Your task to perform on an android device: Open calendar and show me the second week of next month Image 0: 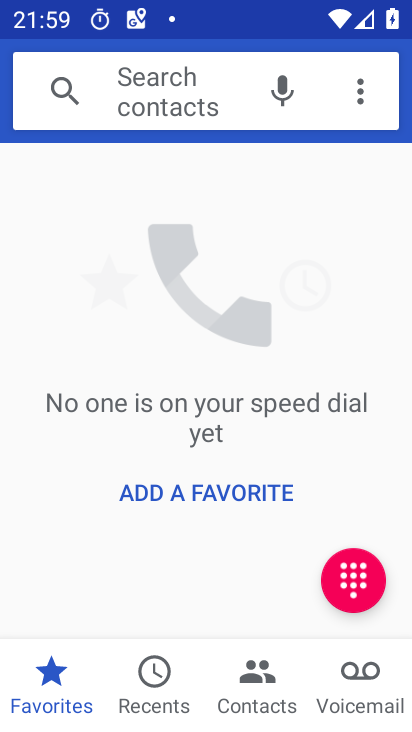
Step 0: press home button
Your task to perform on an android device: Open calendar and show me the second week of next month Image 1: 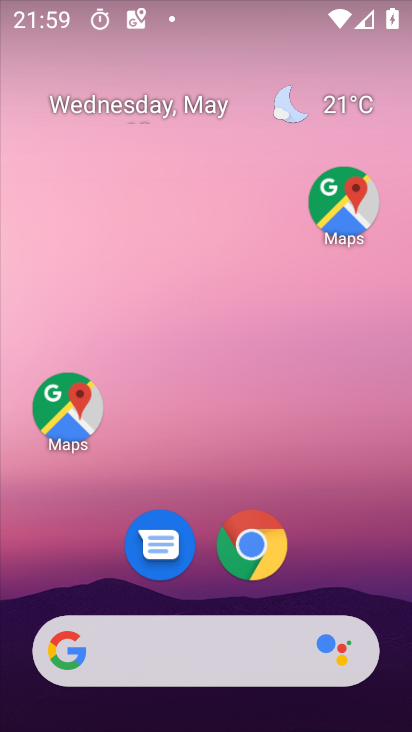
Step 1: drag from (318, 577) to (280, 43)
Your task to perform on an android device: Open calendar and show me the second week of next month Image 2: 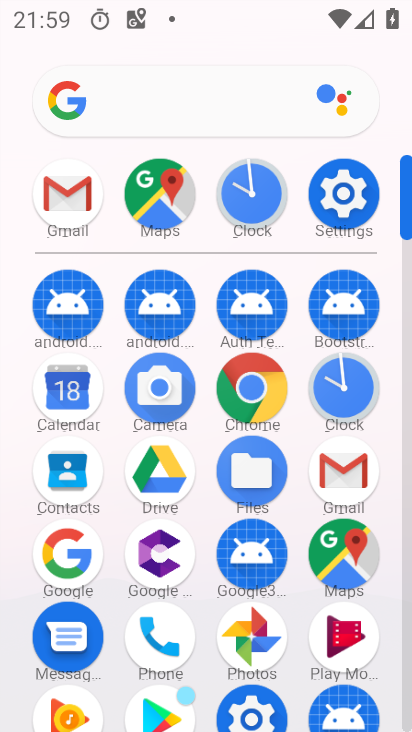
Step 2: click (68, 388)
Your task to perform on an android device: Open calendar and show me the second week of next month Image 3: 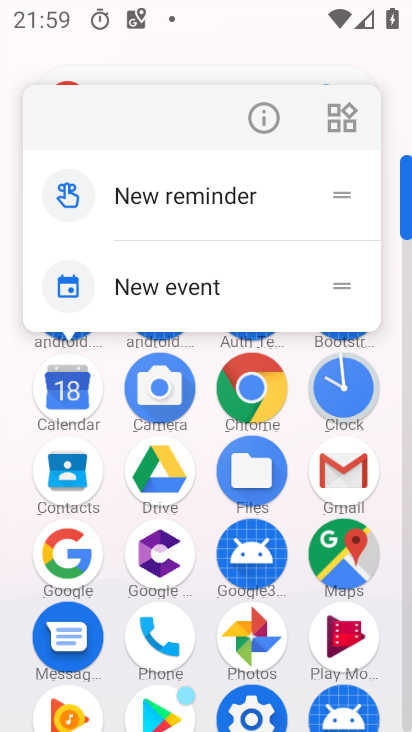
Step 3: click (73, 399)
Your task to perform on an android device: Open calendar and show me the second week of next month Image 4: 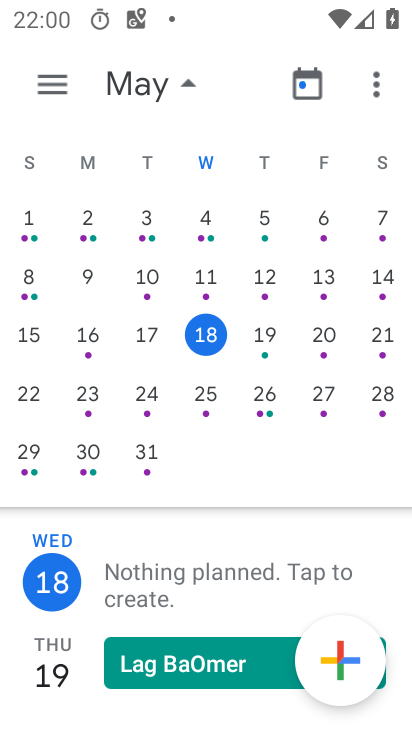
Step 4: drag from (382, 288) to (17, 286)
Your task to perform on an android device: Open calendar and show me the second week of next month Image 5: 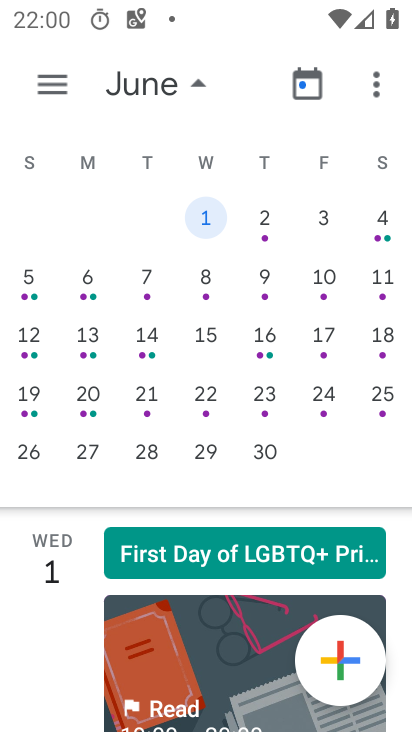
Step 5: click (27, 290)
Your task to perform on an android device: Open calendar and show me the second week of next month Image 6: 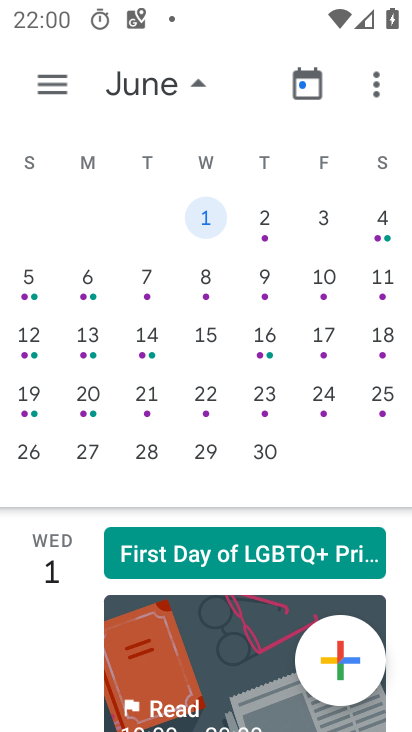
Step 6: click (38, 299)
Your task to perform on an android device: Open calendar and show me the second week of next month Image 7: 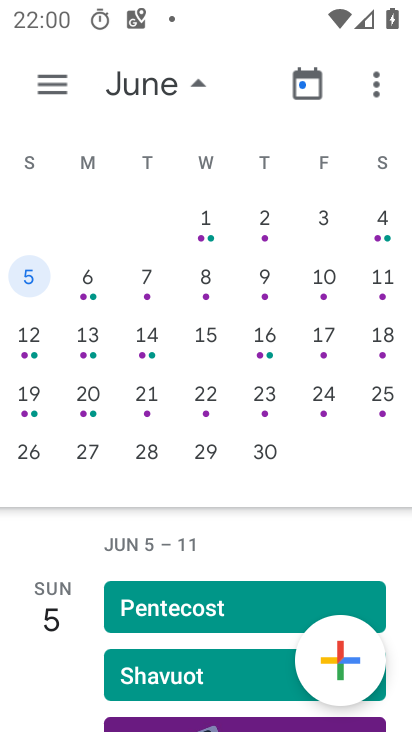
Step 7: task complete